Your task to perform on an android device: read, delete, or share a saved page in the chrome app Image 0: 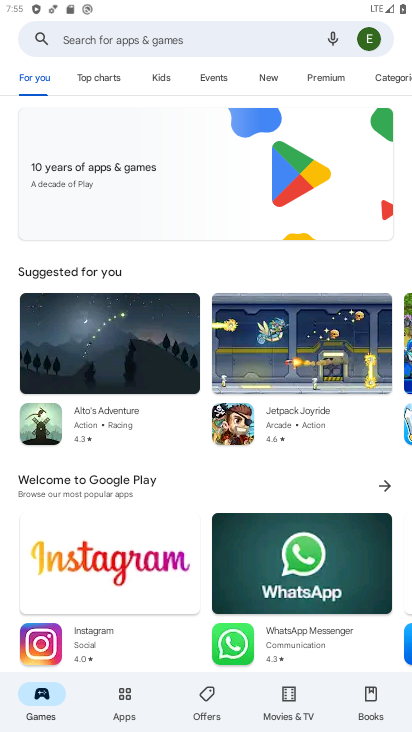
Step 0: press back button
Your task to perform on an android device: read, delete, or share a saved page in the chrome app Image 1: 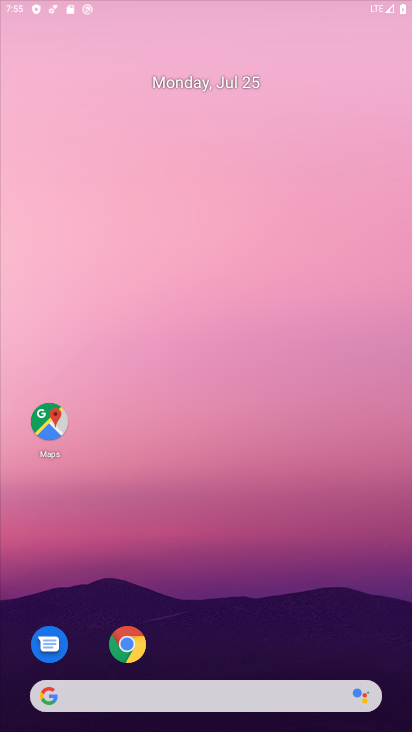
Step 1: press home button
Your task to perform on an android device: read, delete, or share a saved page in the chrome app Image 2: 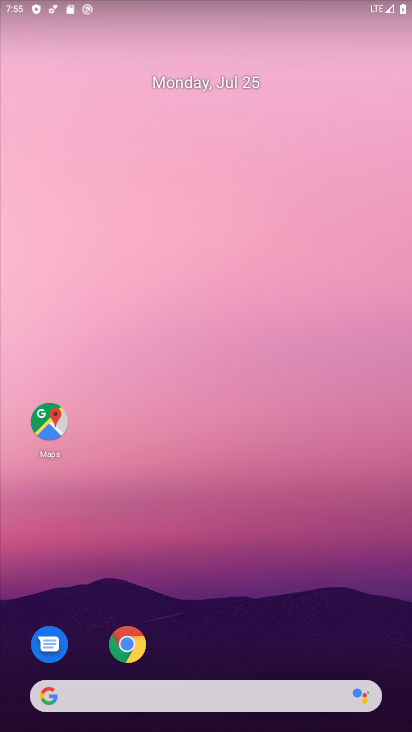
Step 2: drag from (209, 606) to (191, 227)
Your task to perform on an android device: read, delete, or share a saved page in the chrome app Image 3: 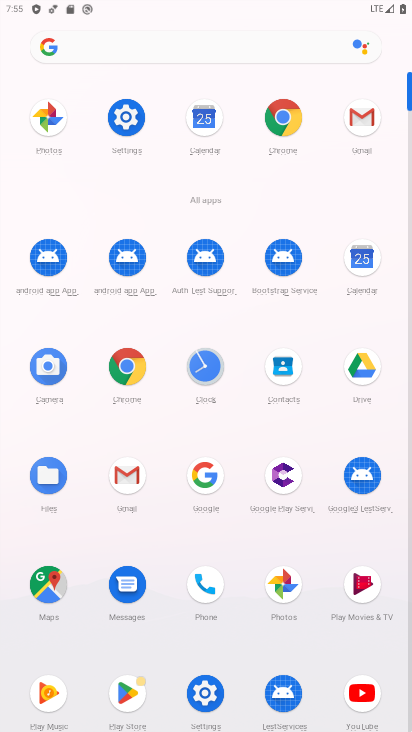
Step 3: click (281, 138)
Your task to perform on an android device: read, delete, or share a saved page in the chrome app Image 4: 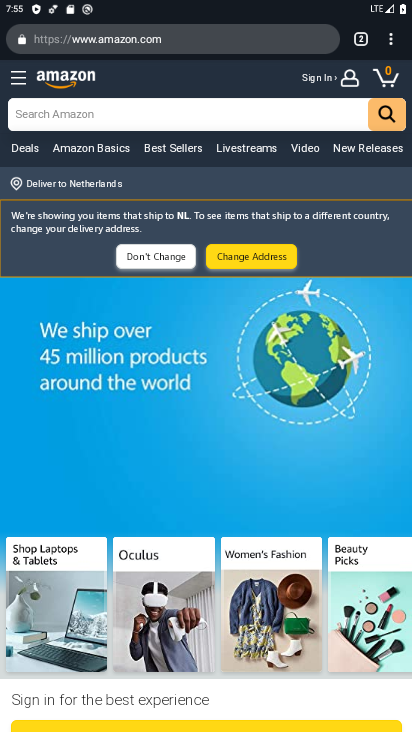
Step 4: click (399, 42)
Your task to perform on an android device: read, delete, or share a saved page in the chrome app Image 5: 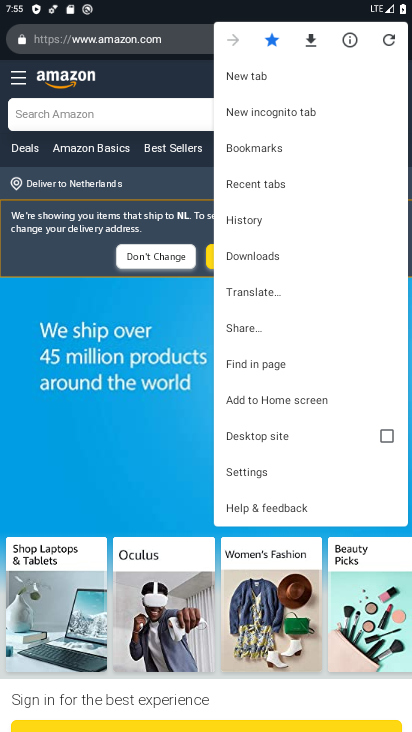
Step 5: click (239, 475)
Your task to perform on an android device: read, delete, or share a saved page in the chrome app Image 6: 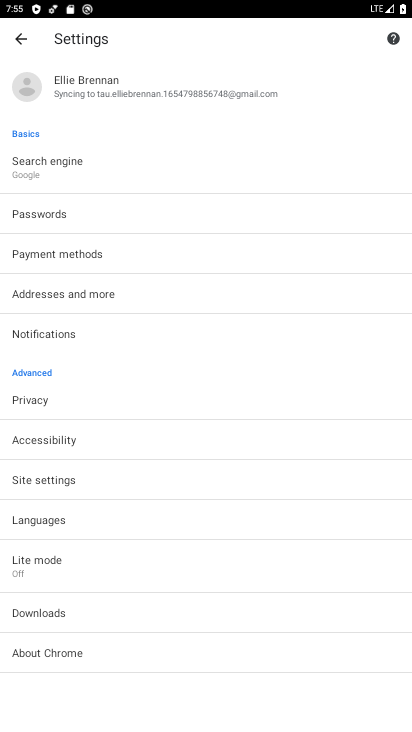
Step 6: task complete